Your task to perform on an android device: check storage Image 0: 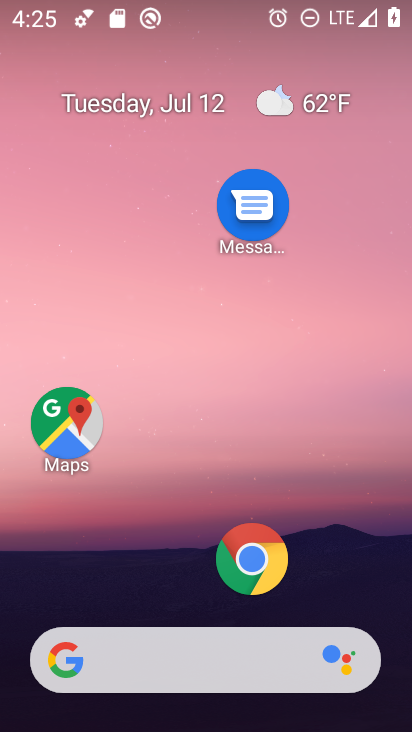
Step 0: drag from (174, 528) to (228, 56)
Your task to perform on an android device: check storage Image 1: 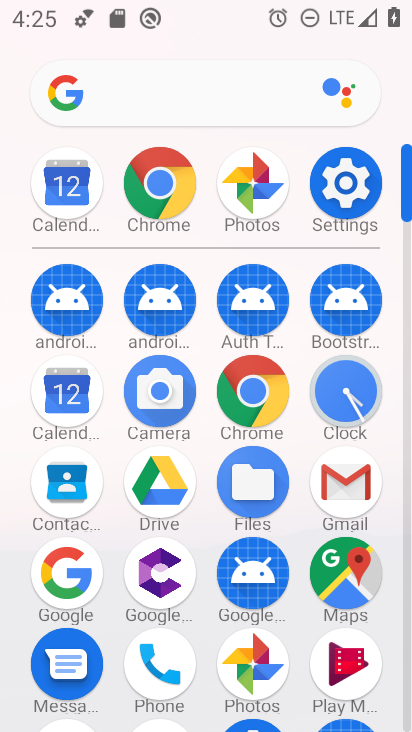
Step 1: click (356, 168)
Your task to perform on an android device: check storage Image 2: 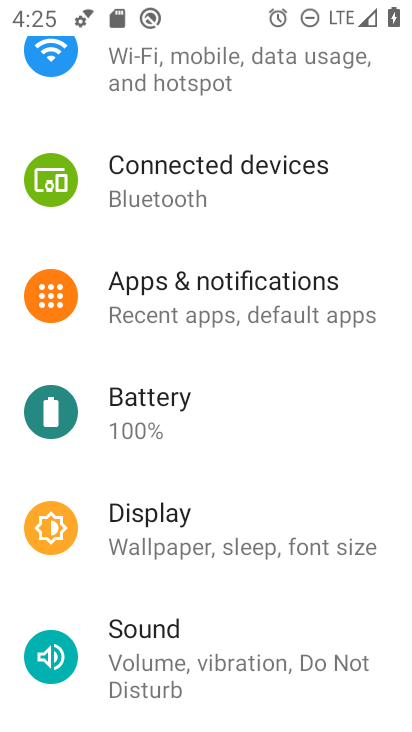
Step 2: drag from (227, 650) to (294, 68)
Your task to perform on an android device: check storage Image 3: 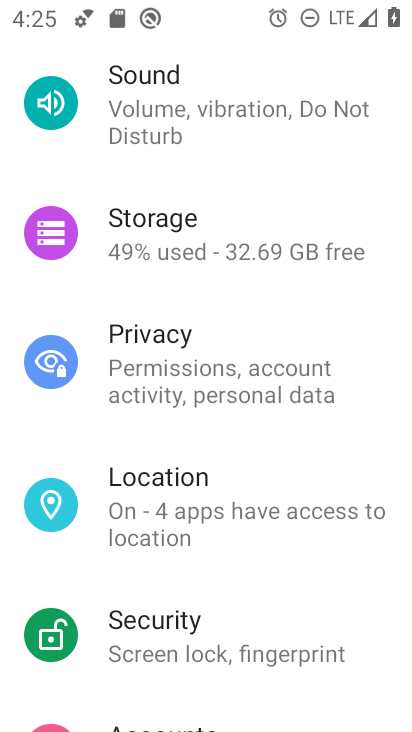
Step 3: click (152, 228)
Your task to perform on an android device: check storage Image 4: 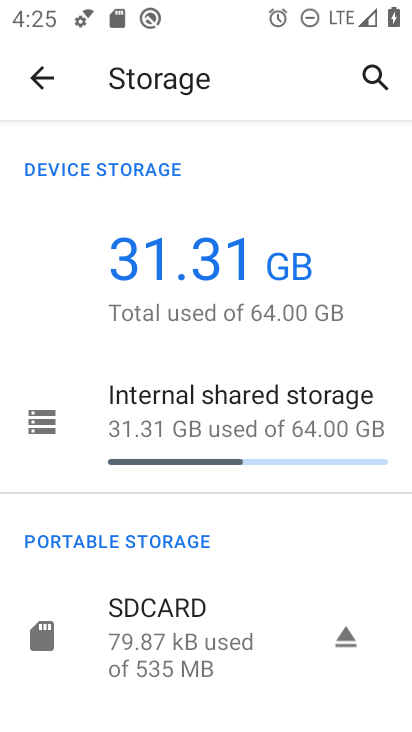
Step 4: task complete